Your task to perform on an android device: What's on my calendar tomorrow? Image 0: 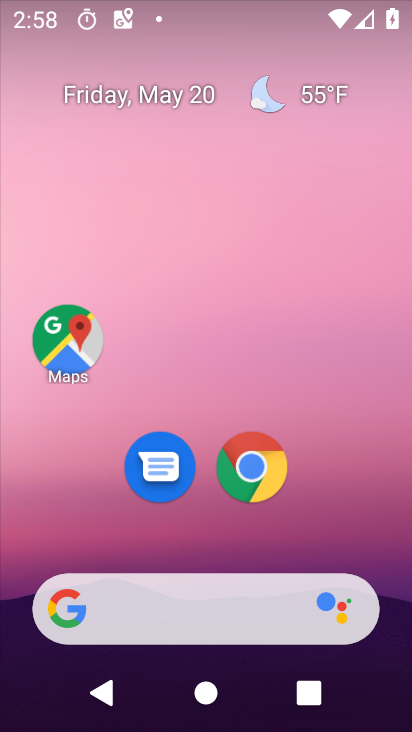
Step 0: drag from (212, 560) to (185, 51)
Your task to perform on an android device: What's on my calendar tomorrow? Image 1: 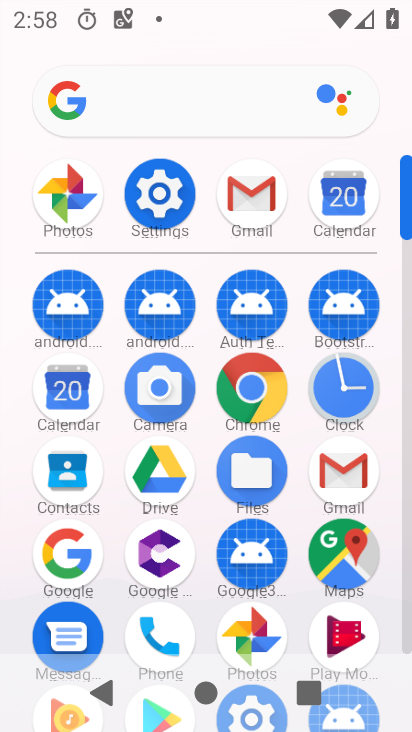
Step 1: click (62, 396)
Your task to perform on an android device: What's on my calendar tomorrow? Image 2: 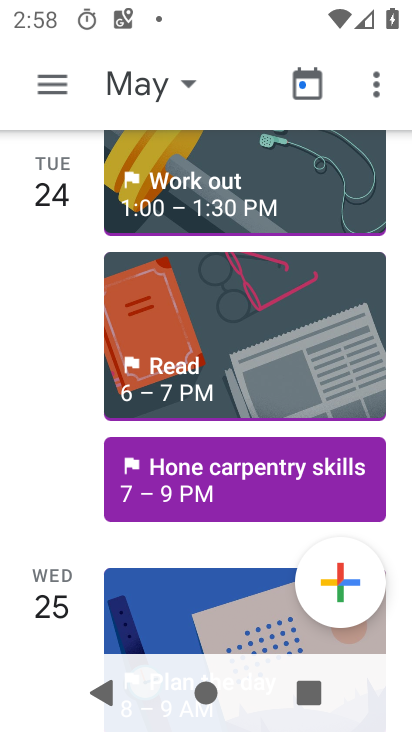
Step 2: click (158, 74)
Your task to perform on an android device: What's on my calendar tomorrow? Image 3: 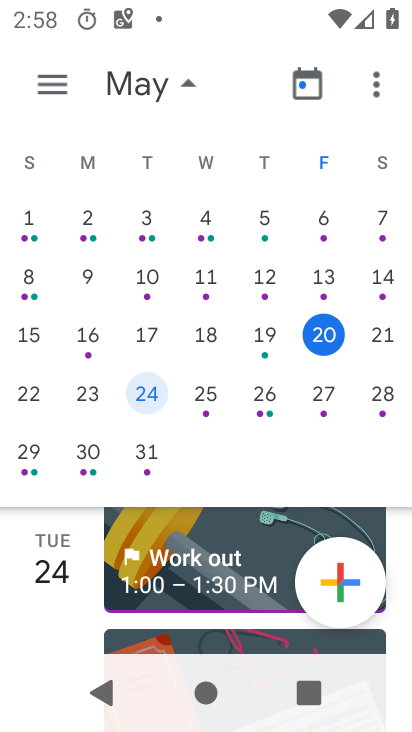
Step 3: click (371, 339)
Your task to perform on an android device: What's on my calendar tomorrow? Image 4: 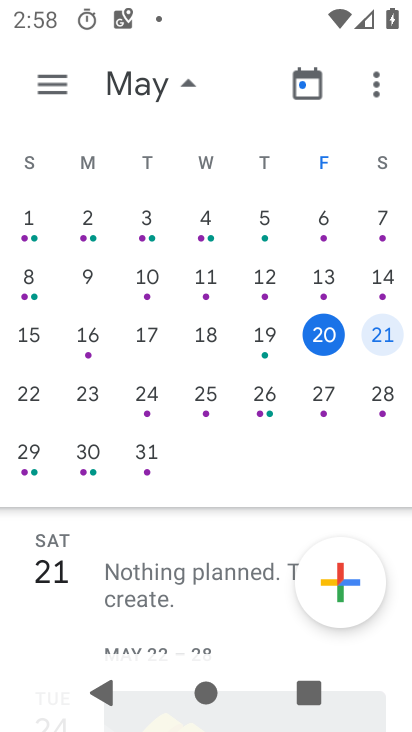
Step 4: task complete